Your task to perform on an android device: Open network settings Image 0: 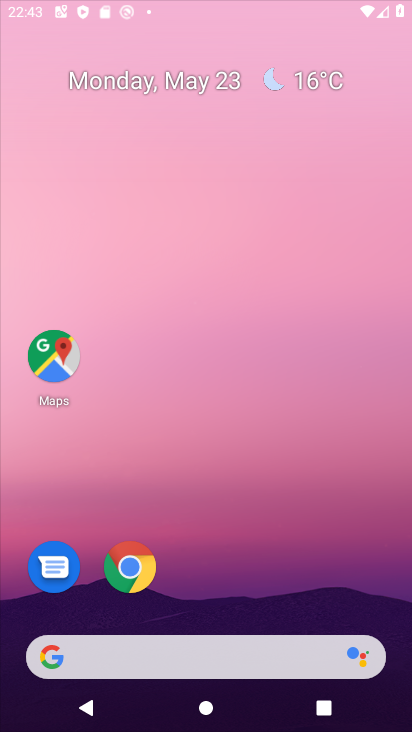
Step 0: click (359, 109)
Your task to perform on an android device: Open network settings Image 1: 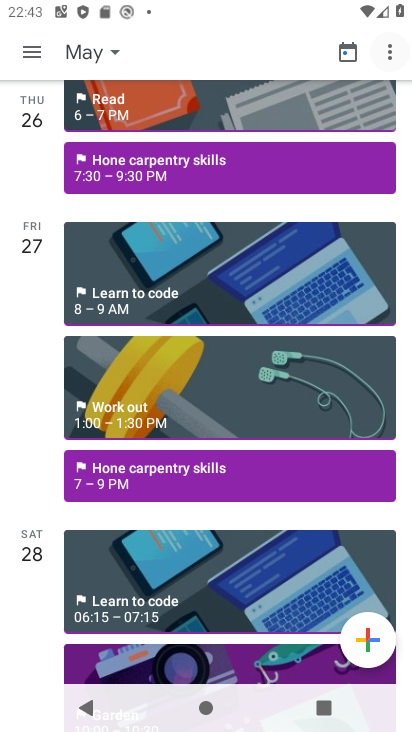
Step 1: drag from (206, 603) to (314, 105)
Your task to perform on an android device: Open network settings Image 2: 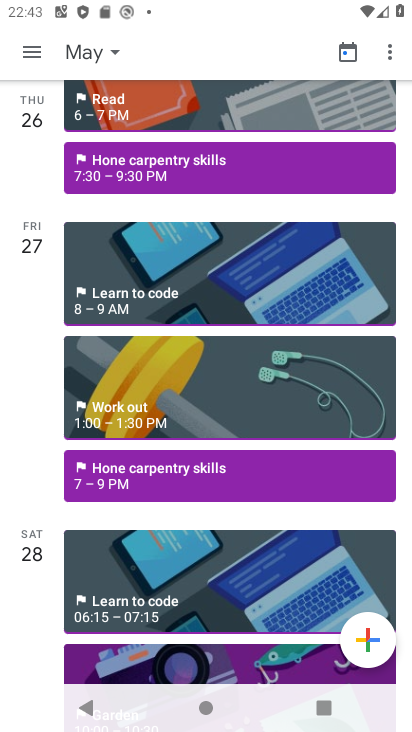
Step 2: press home button
Your task to perform on an android device: Open network settings Image 3: 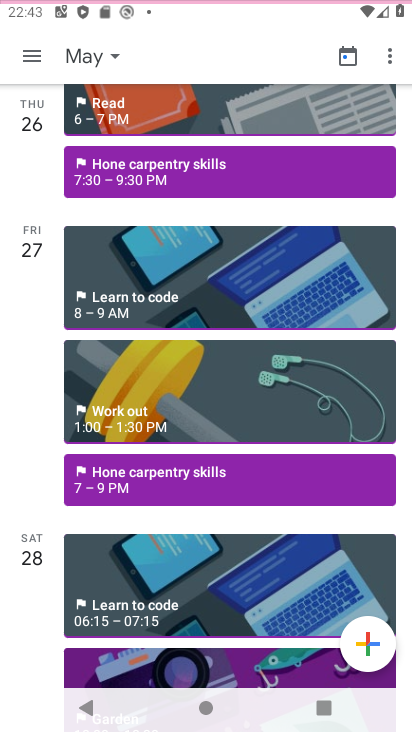
Step 3: drag from (236, 582) to (347, 22)
Your task to perform on an android device: Open network settings Image 4: 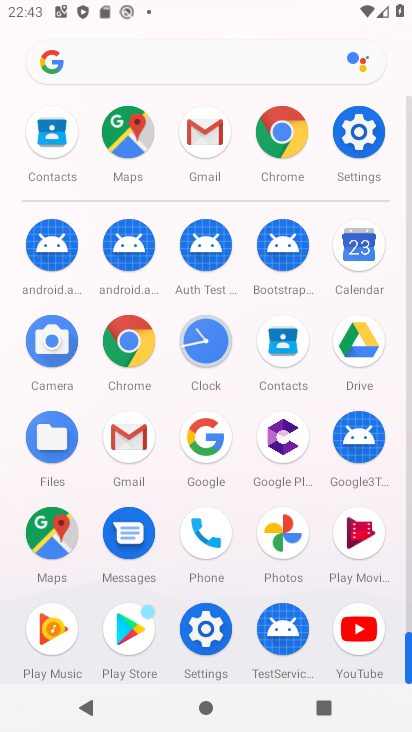
Step 4: click (366, 132)
Your task to perform on an android device: Open network settings Image 5: 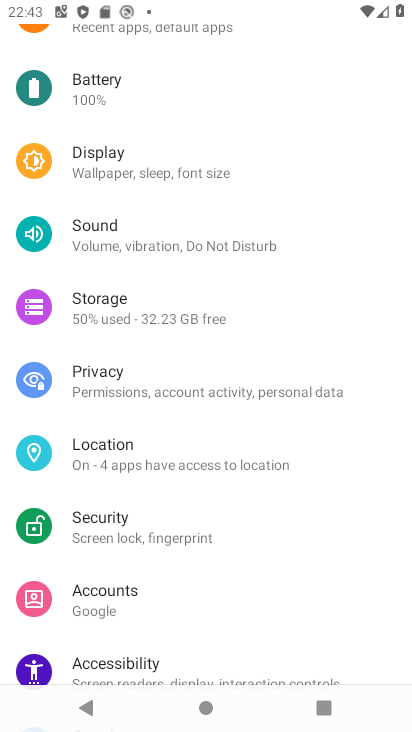
Step 5: drag from (213, 176) to (318, 606)
Your task to perform on an android device: Open network settings Image 6: 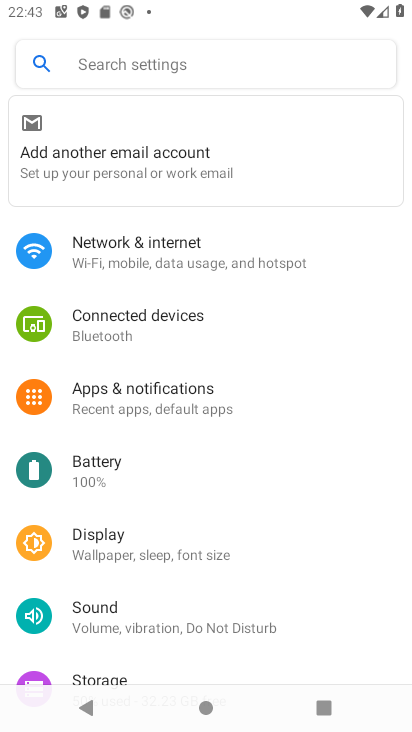
Step 6: click (193, 258)
Your task to perform on an android device: Open network settings Image 7: 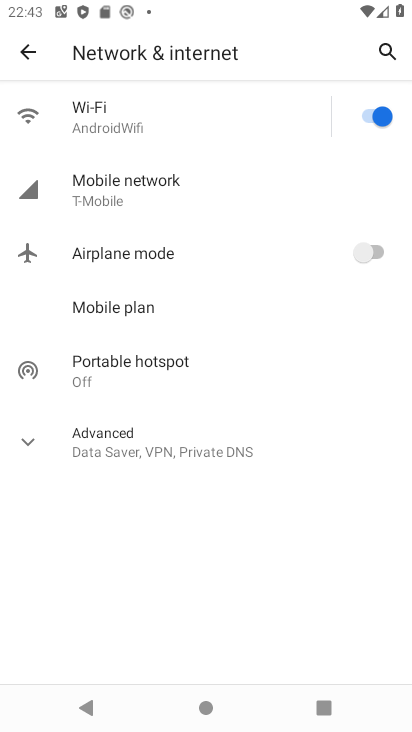
Step 7: task complete